Your task to perform on an android device: see sites visited before in the chrome app Image 0: 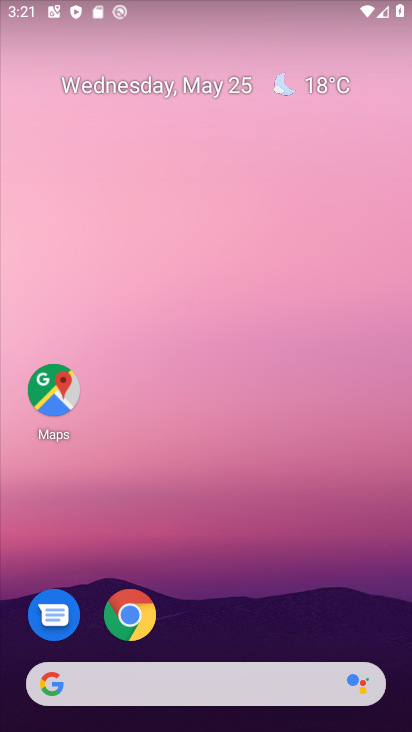
Step 0: click (161, 486)
Your task to perform on an android device: see sites visited before in the chrome app Image 1: 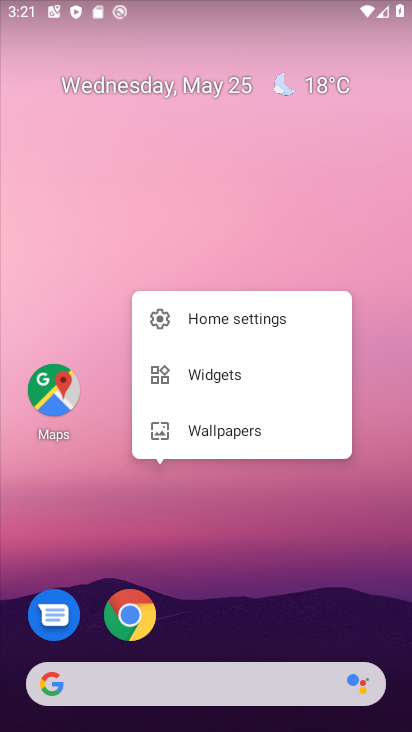
Step 1: click (120, 614)
Your task to perform on an android device: see sites visited before in the chrome app Image 2: 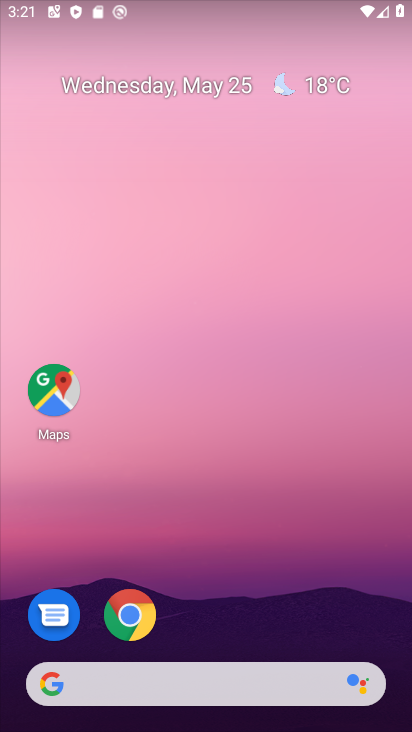
Step 2: drag from (299, 508) to (289, 419)
Your task to perform on an android device: see sites visited before in the chrome app Image 3: 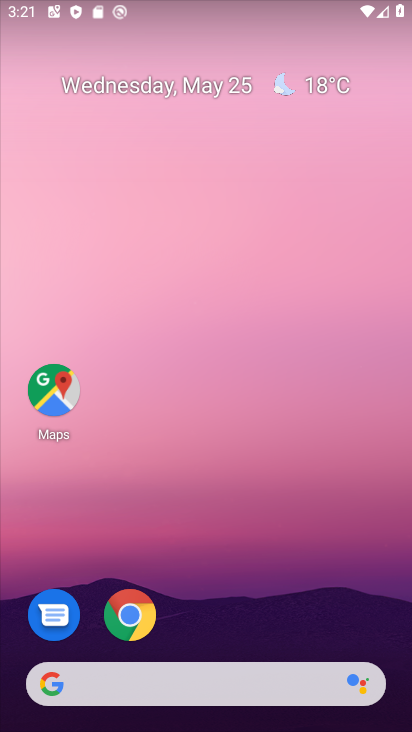
Step 3: click (133, 623)
Your task to perform on an android device: see sites visited before in the chrome app Image 4: 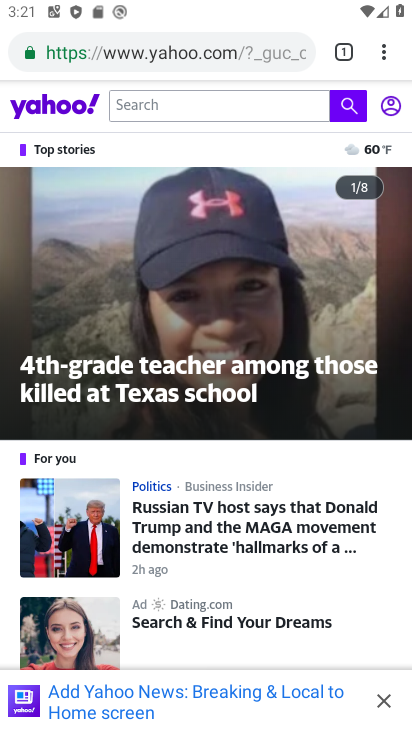
Step 4: click (379, 57)
Your task to perform on an android device: see sites visited before in the chrome app Image 5: 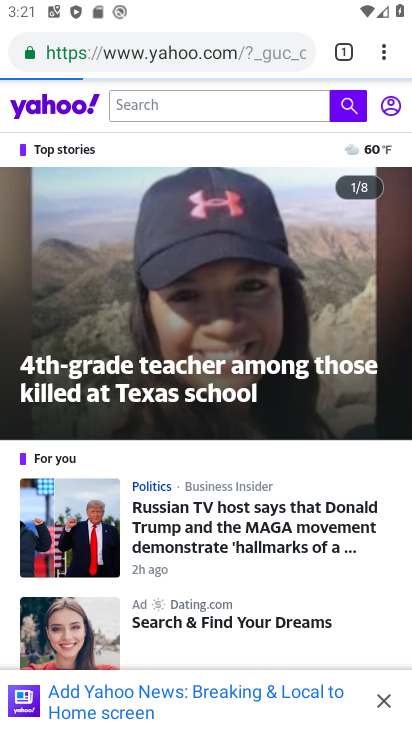
Step 5: click (377, 55)
Your task to perform on an android device: see sites visited before in the chrome app Image 6: 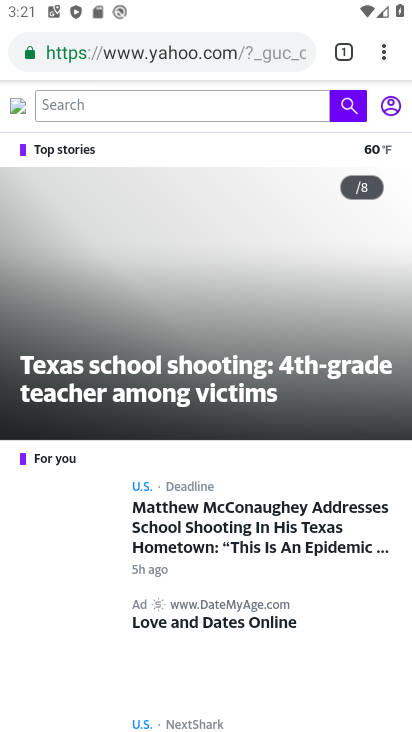
Step 6: click (376, 54)
Your task to perform on an android device: see sites visited before in the chrome app Image 7: 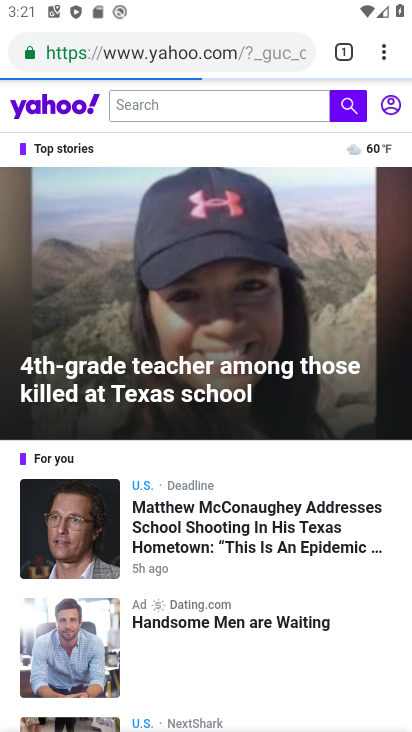
Step 7: click (375, 54)
Your task to perform on an android device: see sites visited before in the chrome app Image 8: 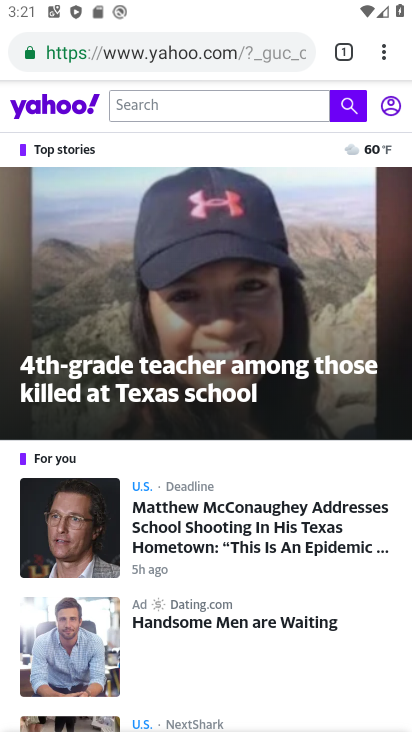
Step 8: click (382, 69)
Your task to perform on an android device: see sites visited before in the chrome app Image 9: 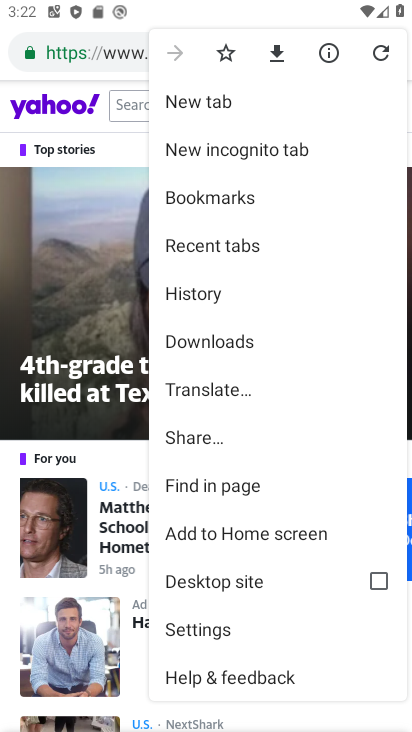
Step 9: click (204, 287)
Your task to perform on an android device: see sites visited before in the chrome app Image 10: 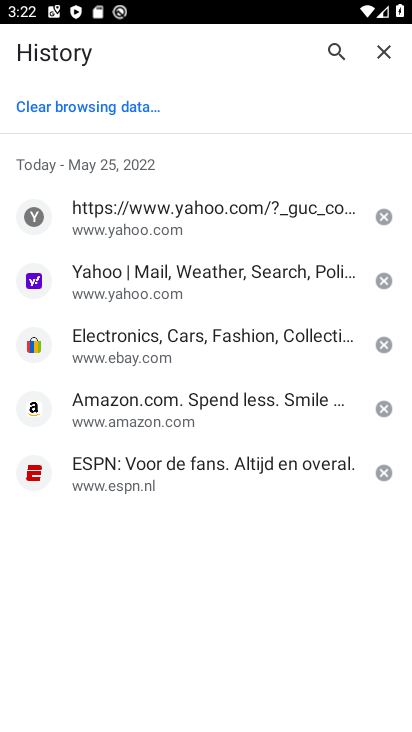
Step 10: task complete